Your task to perform on an android device: open app "Expedia: Hotels, Flights & Car" Image 0: 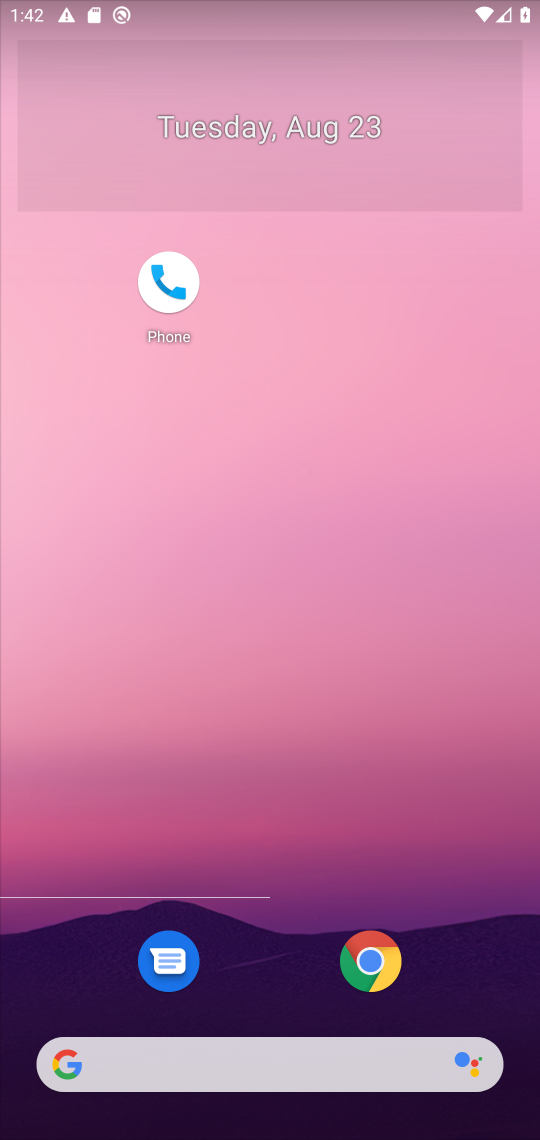
Step 0: drag from (273, 972) to (265, 150)
Your task to perform on an android device: open app "Expedia: Hotels, Flights & Car" Image 1: 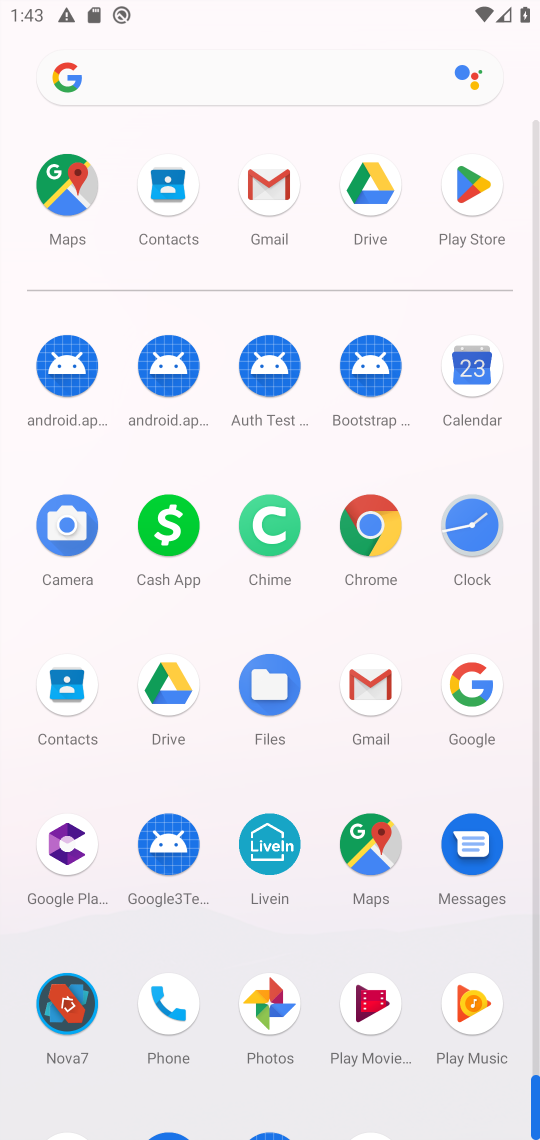
Step 1: click (472, 227)
Your task to perform on an android device: open app "Expedia: Hotels, Flights & Car" Image 2: 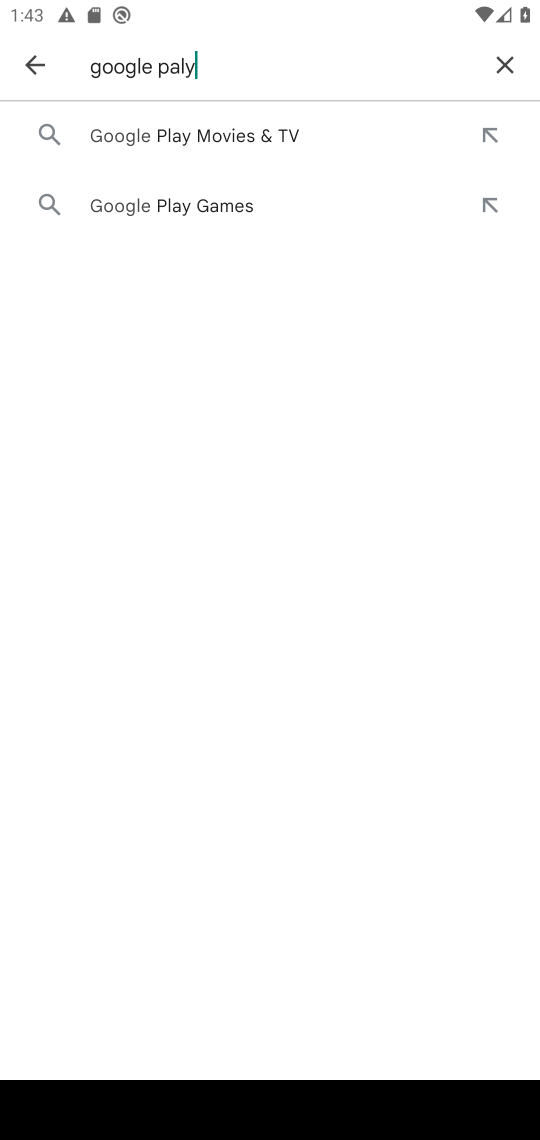
Step 2: click (501, 77)
Your task to perform on an android device: open app "Expedia: Hotels, Flights & Car" Image 3: 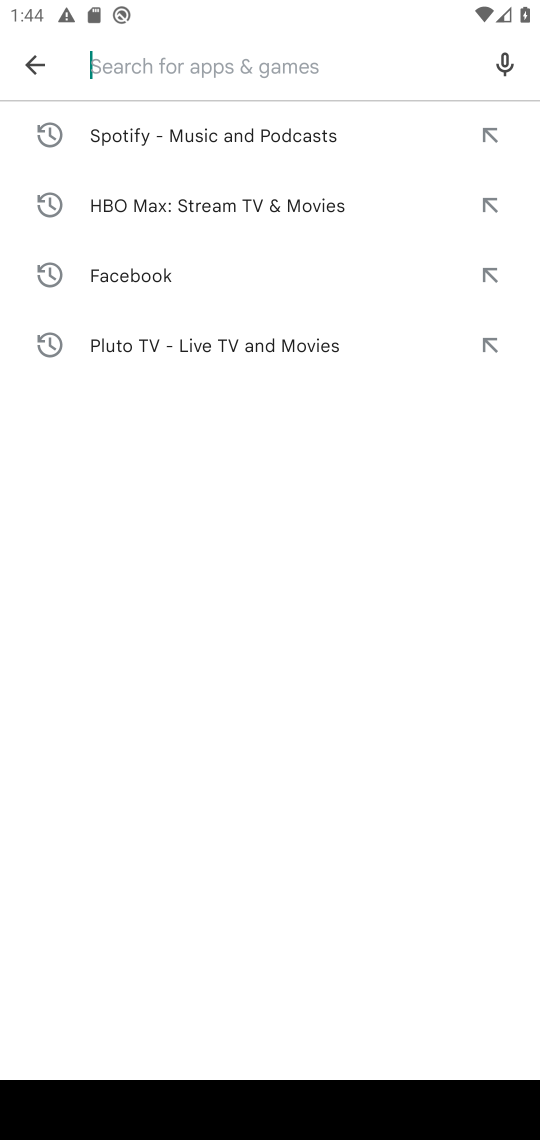
Step 3: type "expedia"
Your task to perform on an android device: open app "Expedia: Hotels, Flights & Car" Image 4: 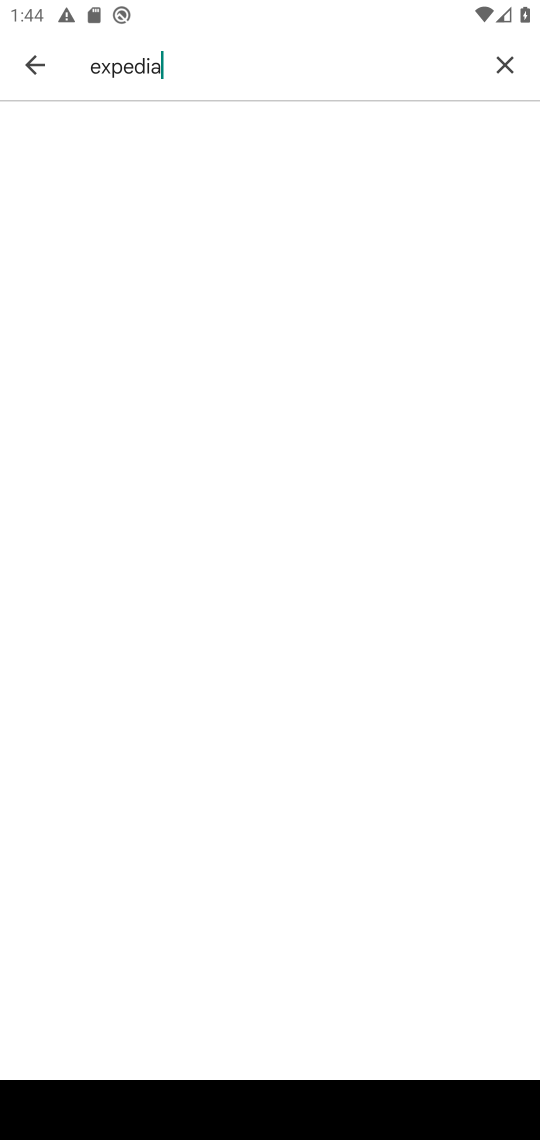
Step 4: task complete